Your task to perform on an android device: see creations saved in the google photos Image 0: 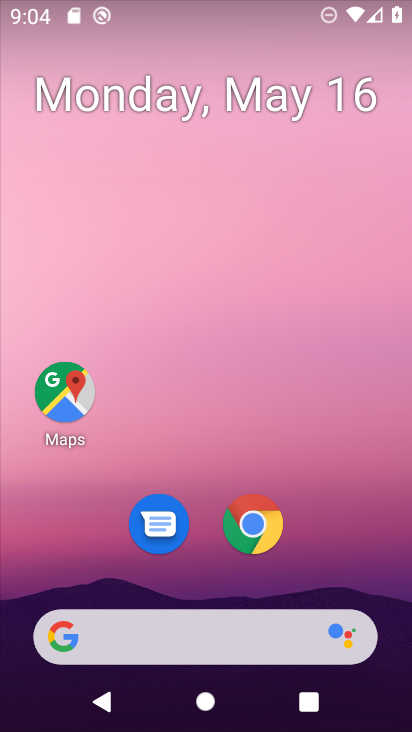
Step 0: drag from (349, 554) to (293, 27)
Your task to perform on an android device: see creations saved in the google photos Image 1: 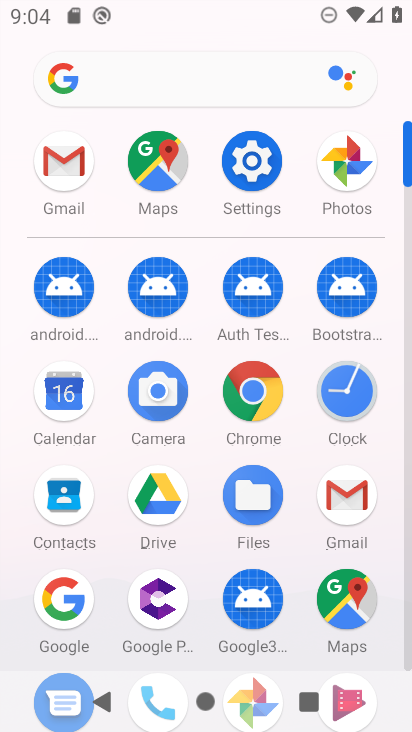
Step 1: click (348, 158)
Your task to perform on an android device: see creations saved in the google photos Image 2: 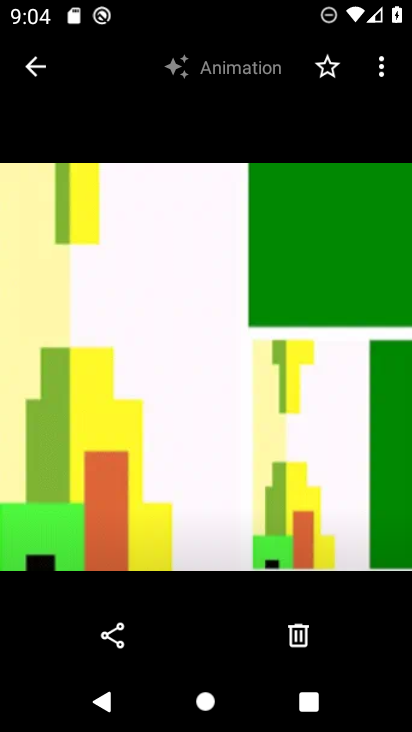
Step 2: click (38, 59)
Your task to perform on an android device: see creations saved in the google photos Image 3: 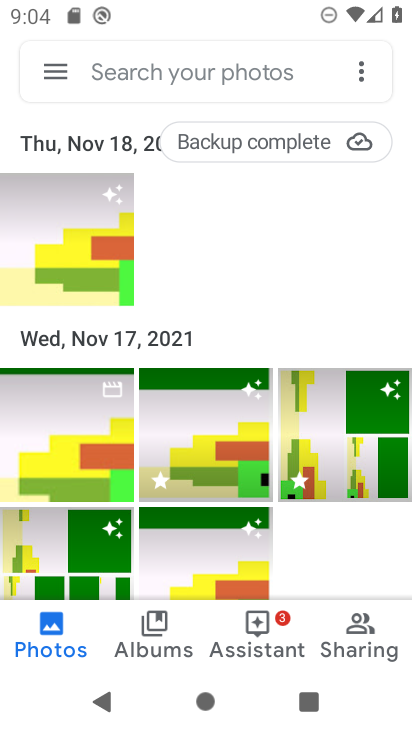
Step 3: click (210, 65)
Your task to perform on an android device: see creations saved in the google photos Image 4: 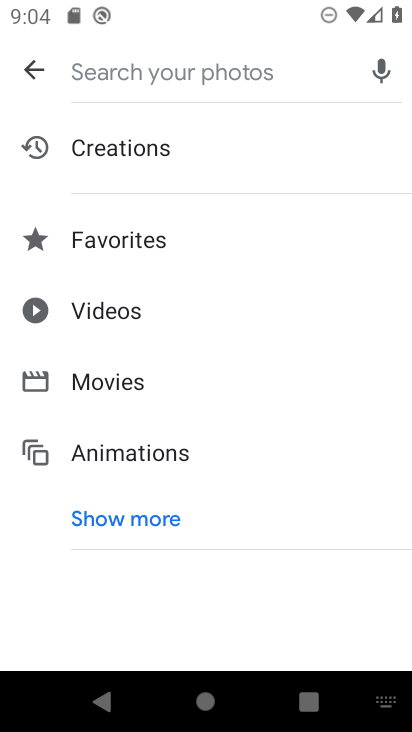
Step 4: click (146, 523)
Your task to perform on an android device: see creations saved in the google photos Image 5: 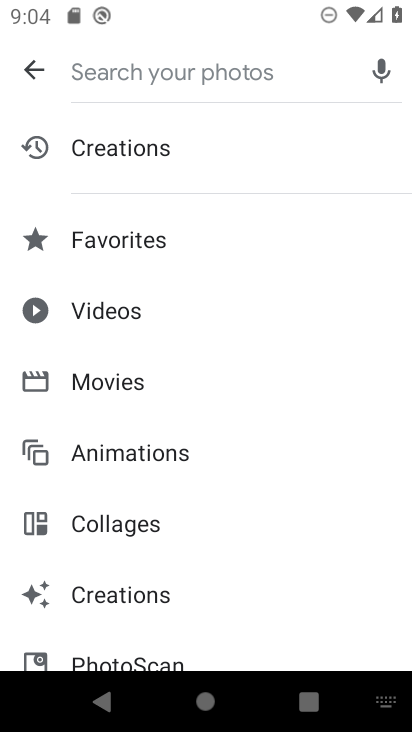
Step 5: click (140, 585)
Your task to perform on an android device: see creations saved in the google photos Image 6: 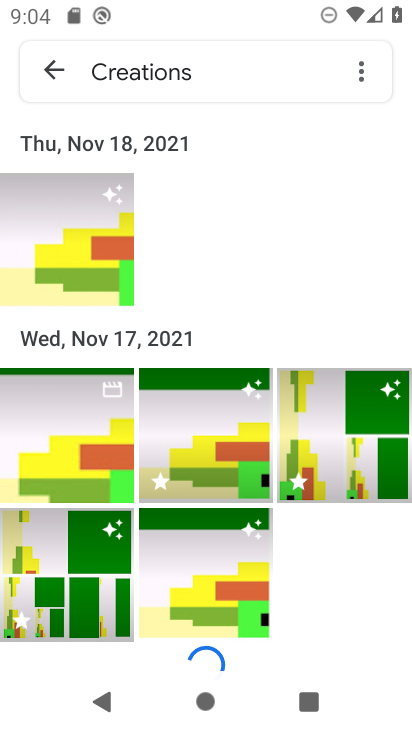
Step 6: task complete